Your task to perform on an android device: What is the news today? Image 0: 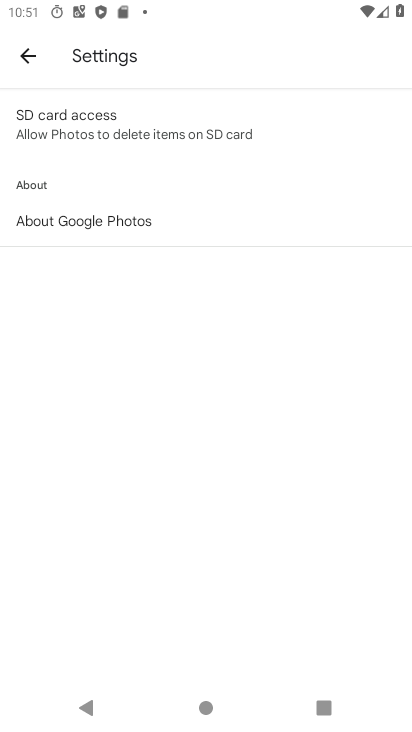
Step 0: press home button
Your task to perform on an android device: What is the news today? Image 1: 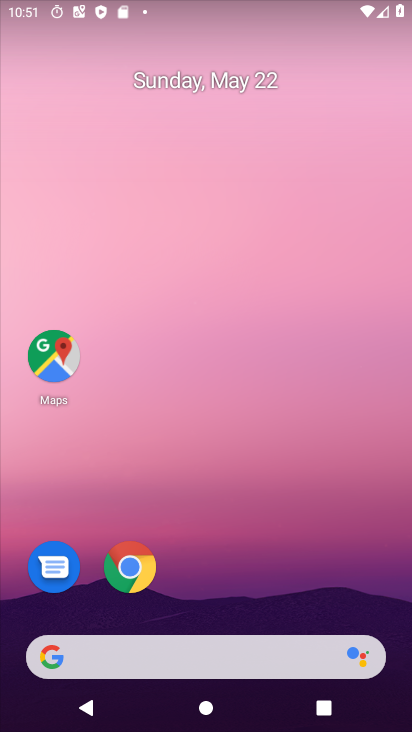
Step 1: drag from (274, 561) to (317, 76)
Your task to perform on an android device: What is the news today? Image 2: 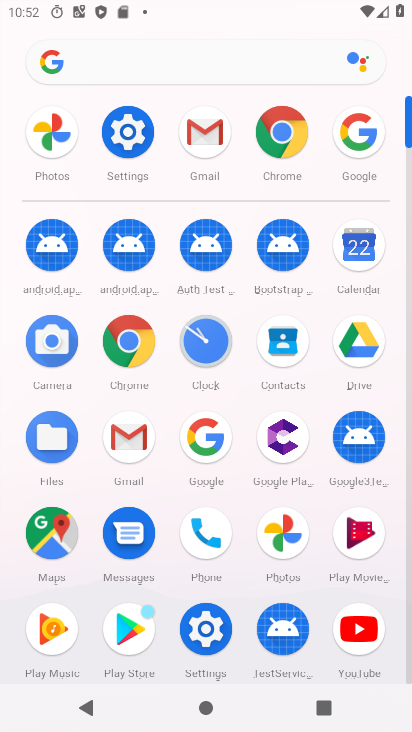
Step 2: click (129, 347)
Your task to perform on an android device: What is the news today? Image 3: 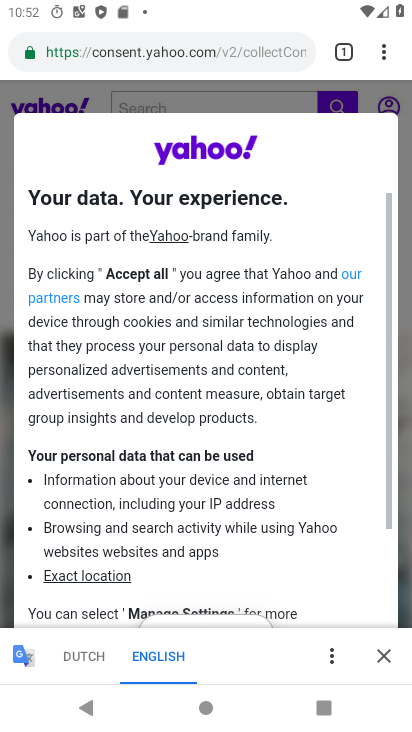
Step 3: click (385, 652)
Your task to perform on an android device: What is the news today? Image 4: 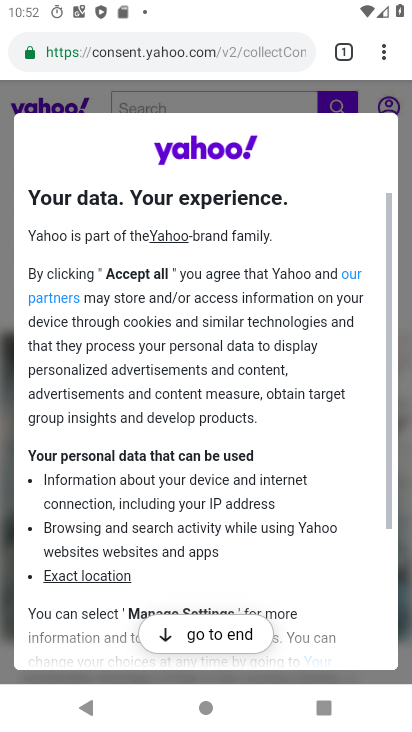
Step 4: click (176, 54)
Your task to perform on an android device: What is the news today? Image 5: 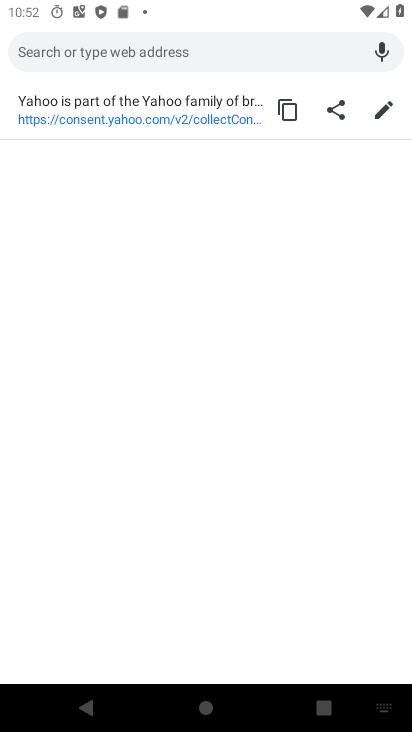
Step 5: type "what is the news today"
Your task to perform on an android device: What is the news today? Image 6: 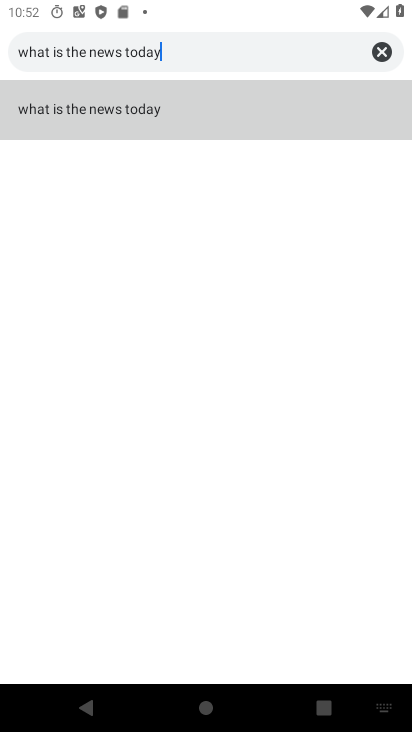
Step 6: click (124, 111)
Your task to perform on an android device: What is the news today? Image 7: 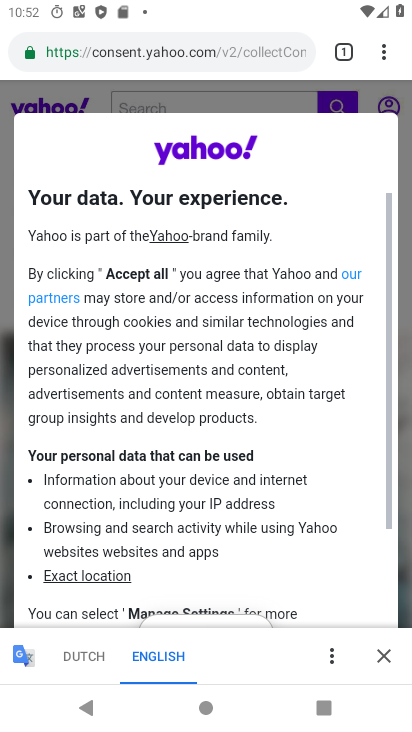
Step 7: task complete